Your task to perform on an android device: set an alarm Image 0: 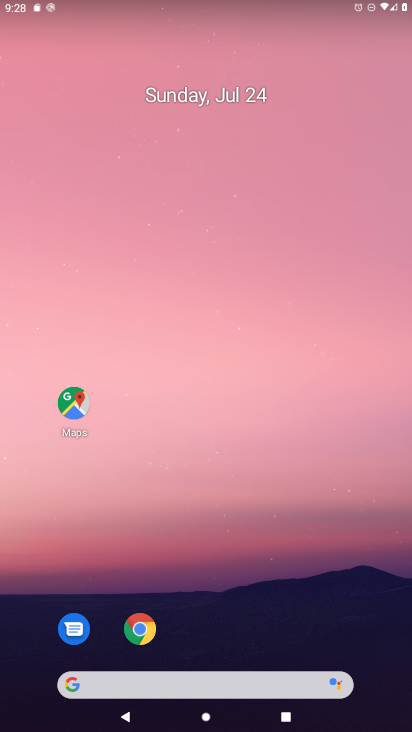
Step 0: drag from (373, 677) to (135, 29)
Your task to perform on an android device: set an alarm Image 1: 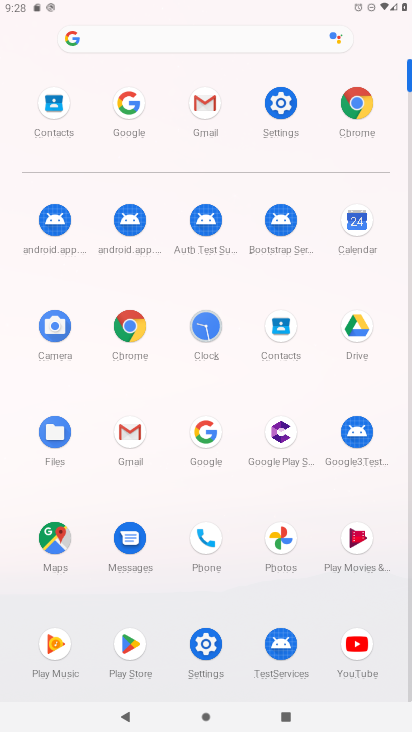
Step 1: click (206, 318)
Your task to perform on an android device: set an alarm Image 2: 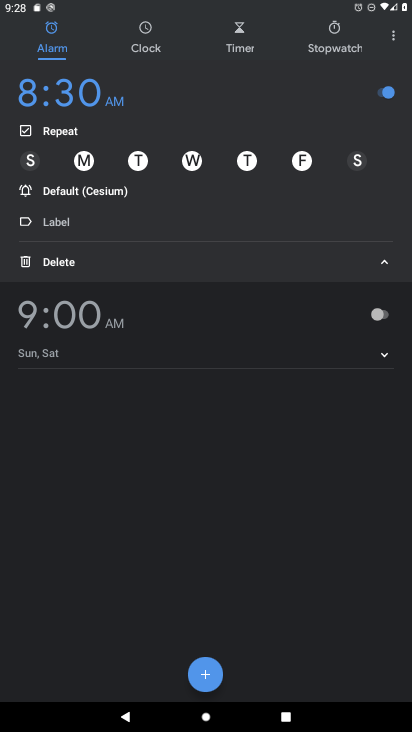
Step 2: click (388, 319)
Your task to perform on an android device: set an alarm Image 3: 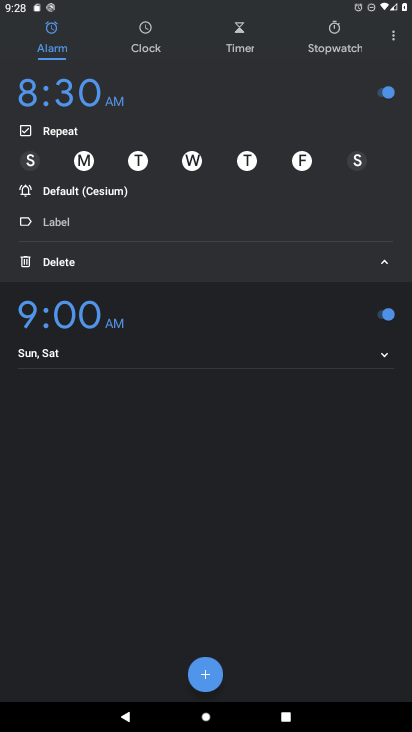
Step 3: task complete